Your task to perform on an android device: Add lg ultragear to the cart on ebay, then select checkout. Image 0: 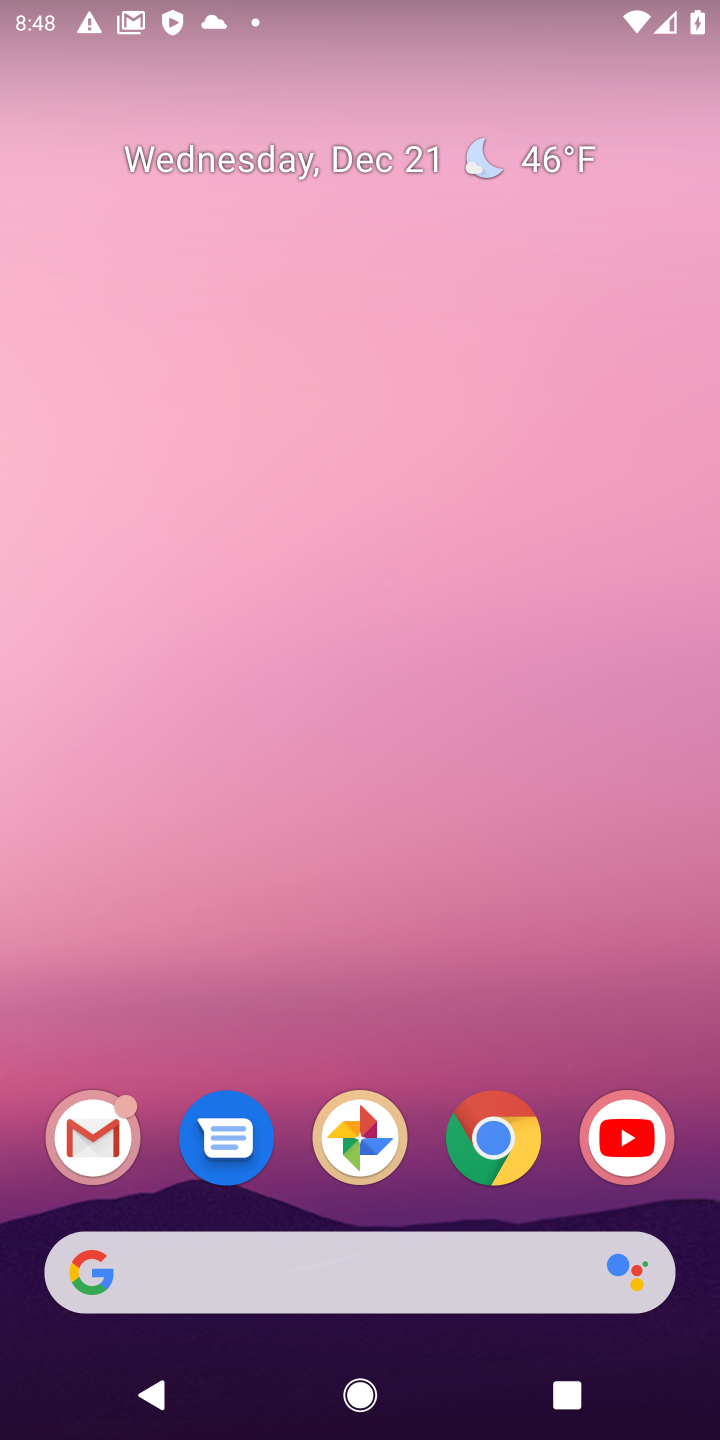
Step 0: click (500, 1150)
Your task to perform on an android device: Add lg ultragear to the cart on ebay, then select checkout. Image 1: 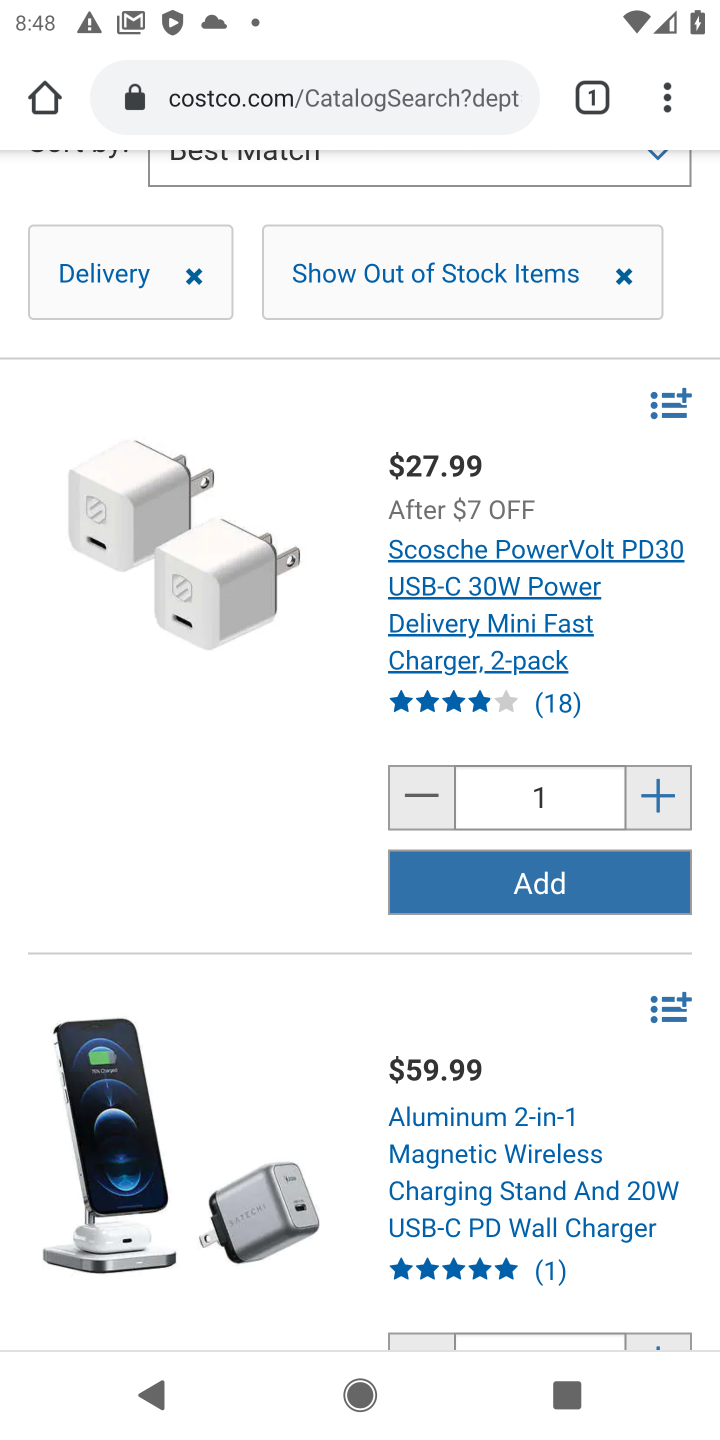
Step 1: click (310, 102)
Your task to perform on an android device: Add lg ultragear to the cart on ebay, then select checkout. Image 2: 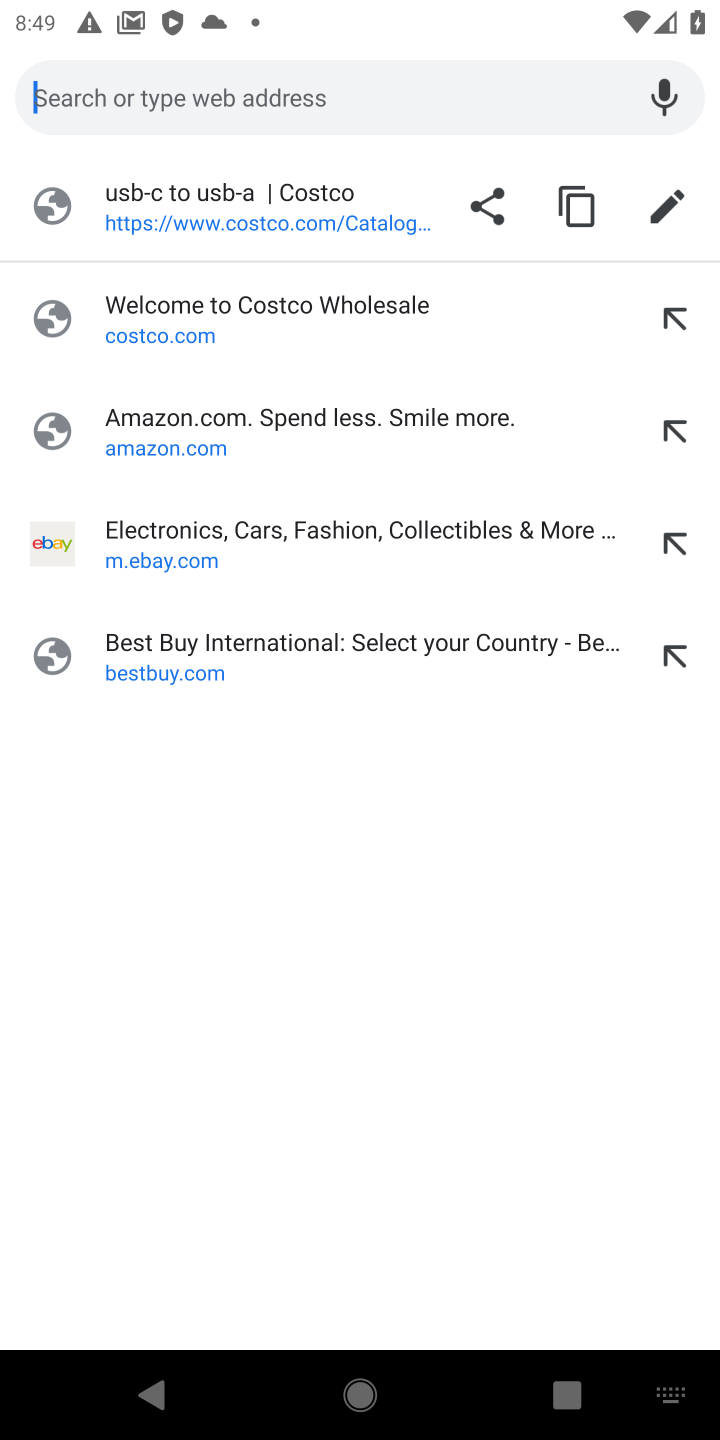
Step 2: click (132, 550)
Your task to perform on an android device: Add lg ultragear to the cart on ebay, then select checkout. Image 3: 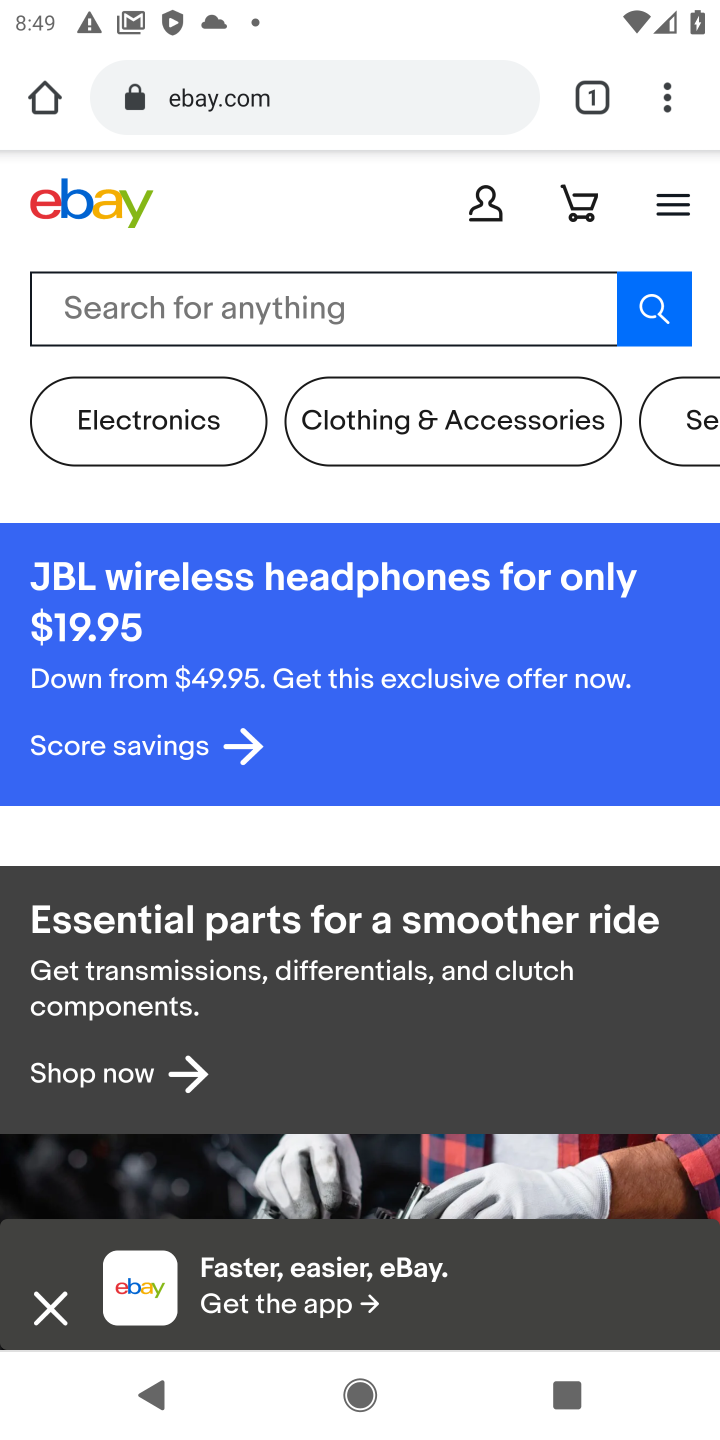
Step 3: click (128, 309)
Your task to perform on an android device: Add lg ultragear to the cart on ebay, then select checkout. Image 4: 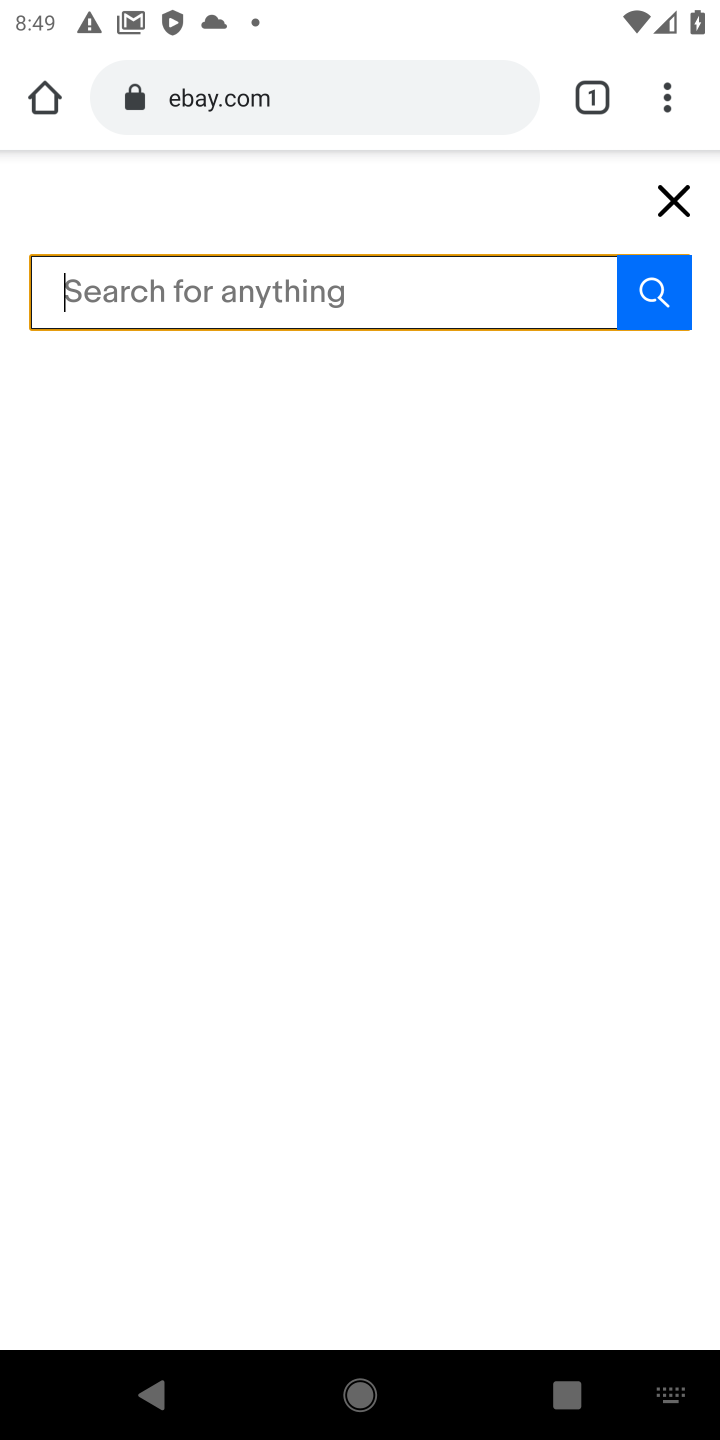
Step 4: type "lg ultragear"
Your task to perform on an android device: Add lg ultragear to the cart on ebay, then select checkout. Image 5: 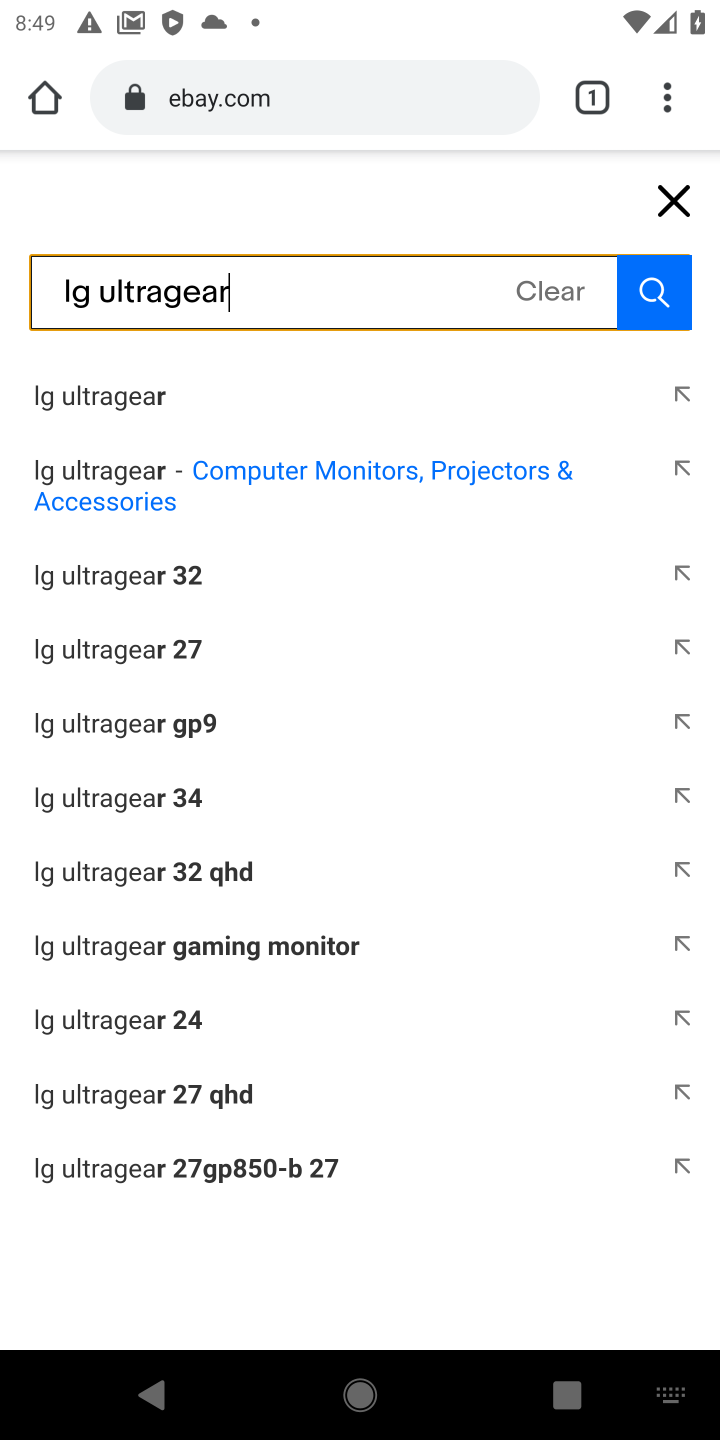
Step 5: click (79, 401)
Your task to perform on an android device: Add lg ultragear to the cart on ebay, then select checkout. Image 6: 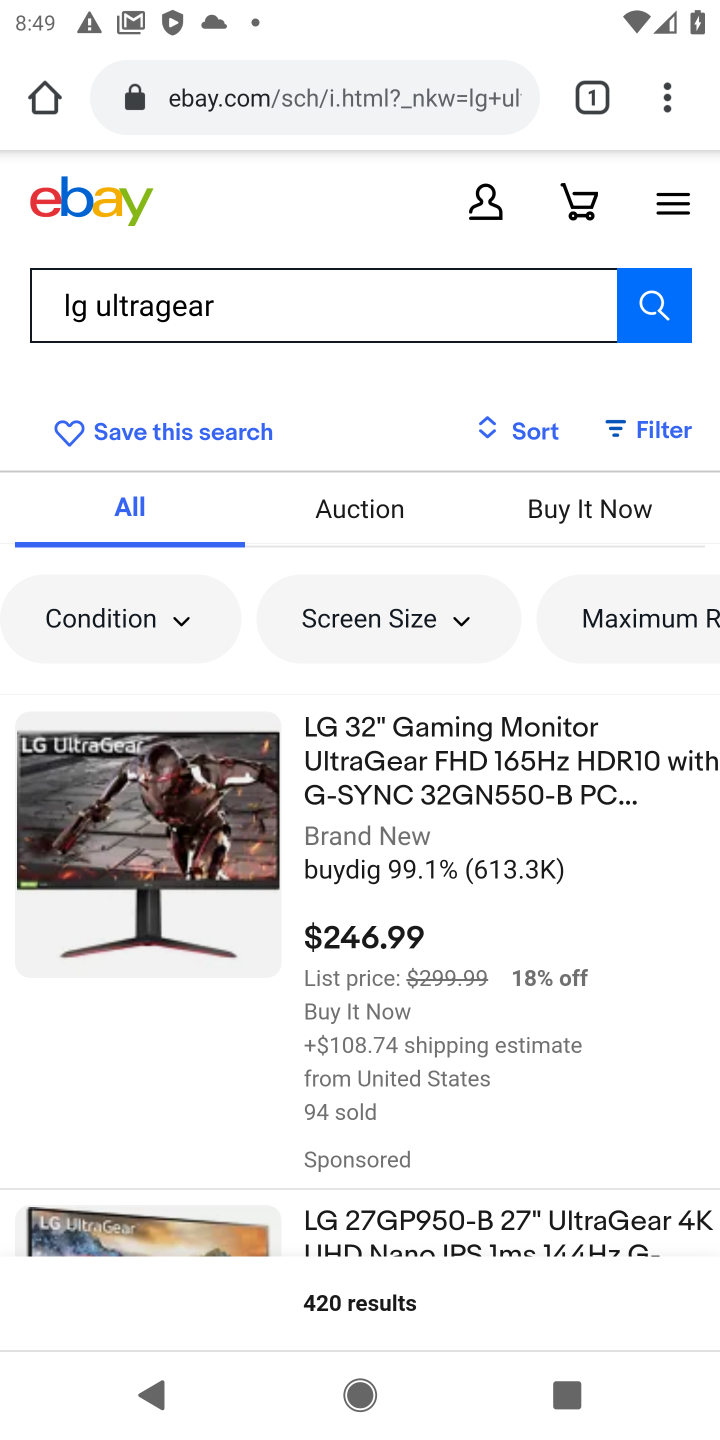
Step 6: click (476, 793)
Your task to perform on an android device: Add lg ultragear to the cart on ebay, then select checkout. Image 7: 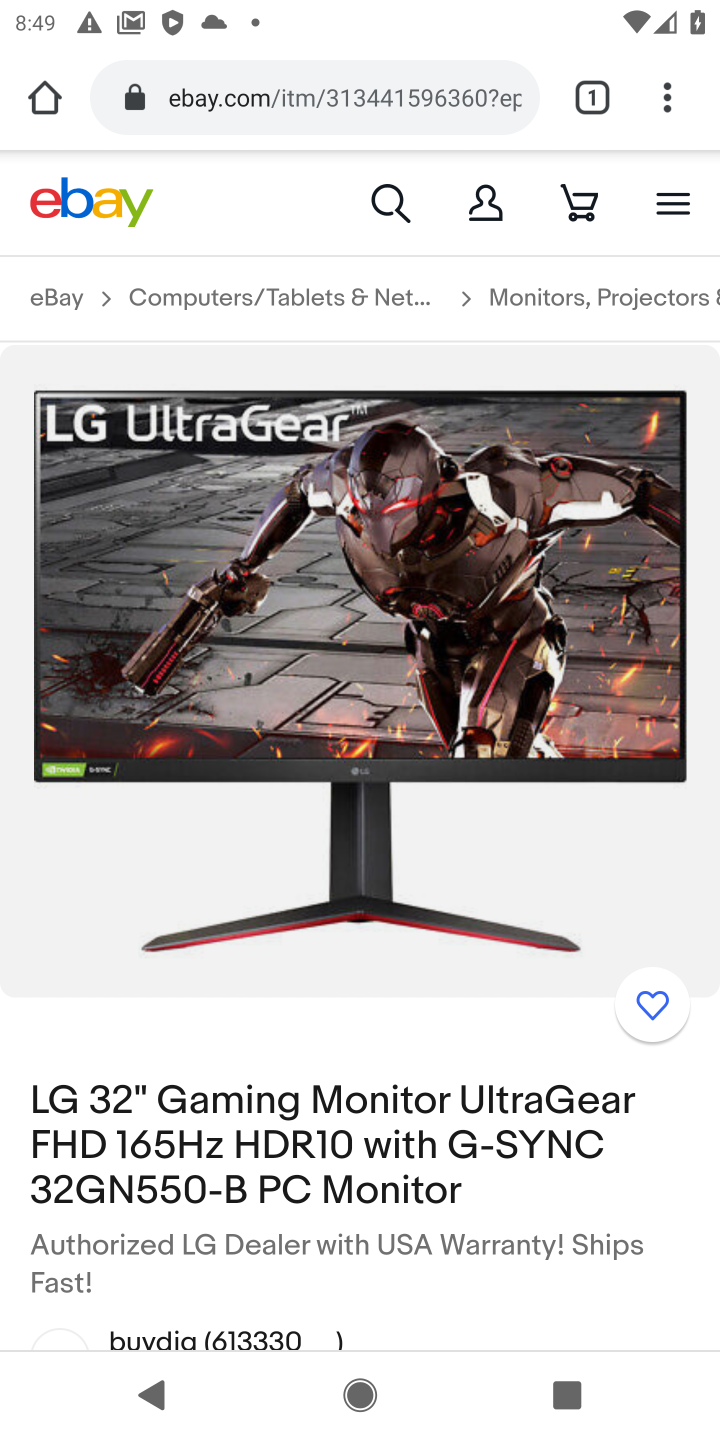
Step 7: drag from (372, 1053) to (386, 429)
Your task to perform on an android device: Add lg ultragear to the cart on ebay, then select checkout. Image 8: 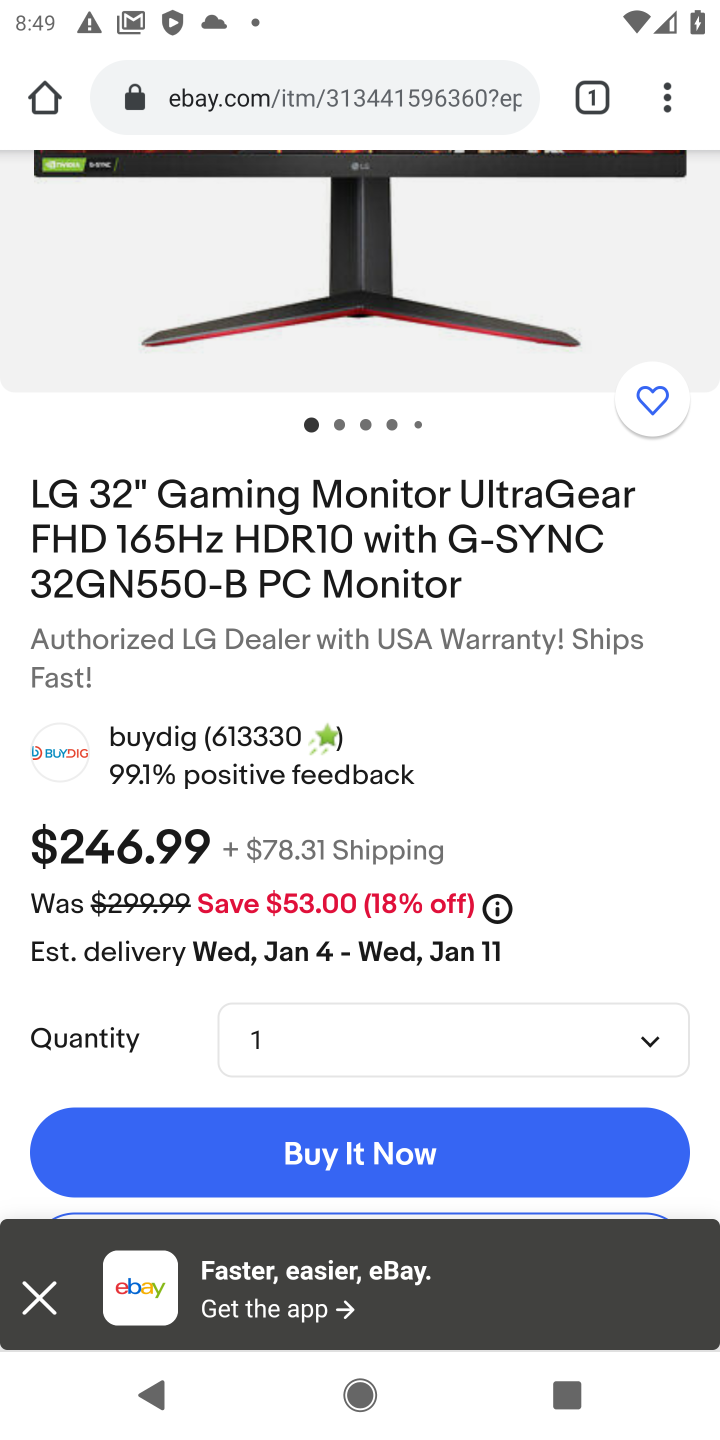
Step 8: drag from (322, 1057) to (363, 589)
Your task to perform on an android device: Add lg ultragear to the cart on ebay, then select checkout. Image 9: 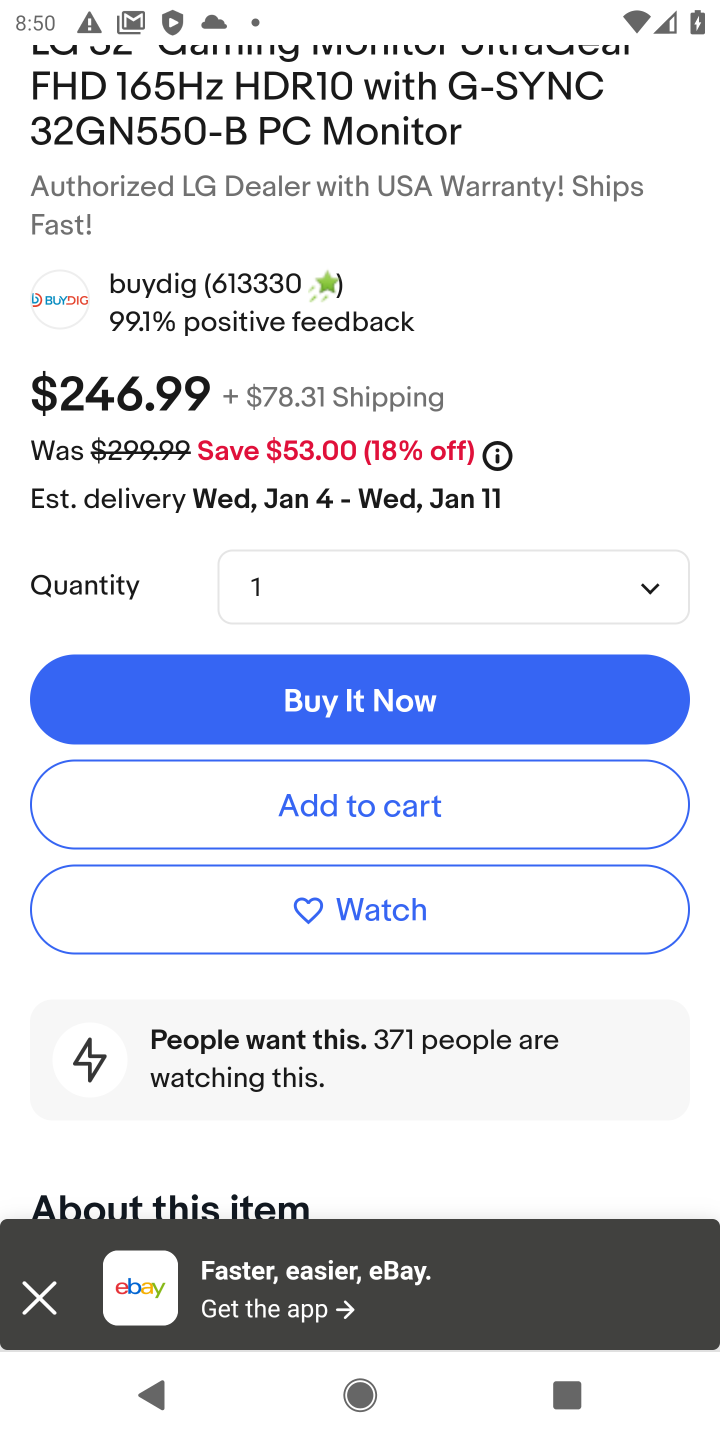
Step 9: click (350, 810)
Your task to perform on an android device: Add lg ultragear to the cart on ebay, then select checkout. Image 10: 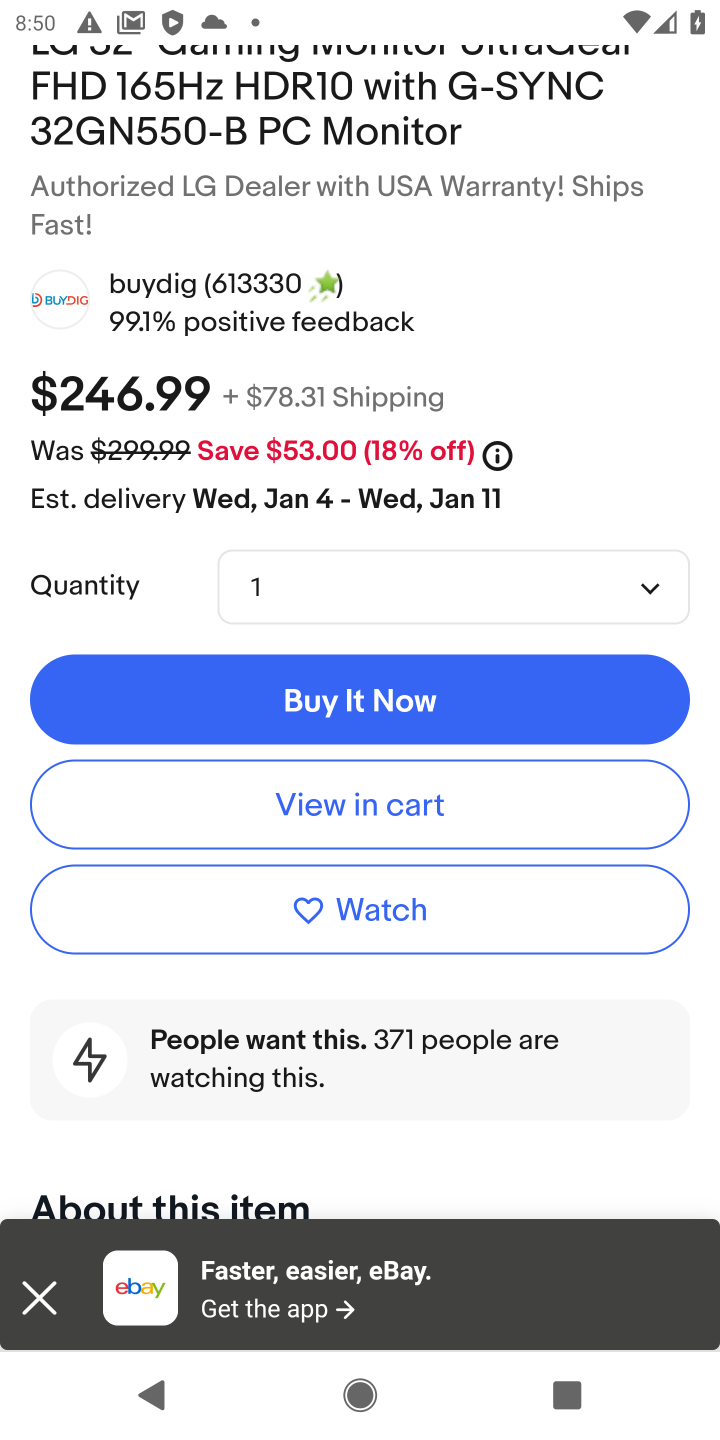
Step 10: click (350, 810)
Your task to perform on an android device: Add lg ultragear to the cart on ebay, then select checkout. Image 11: 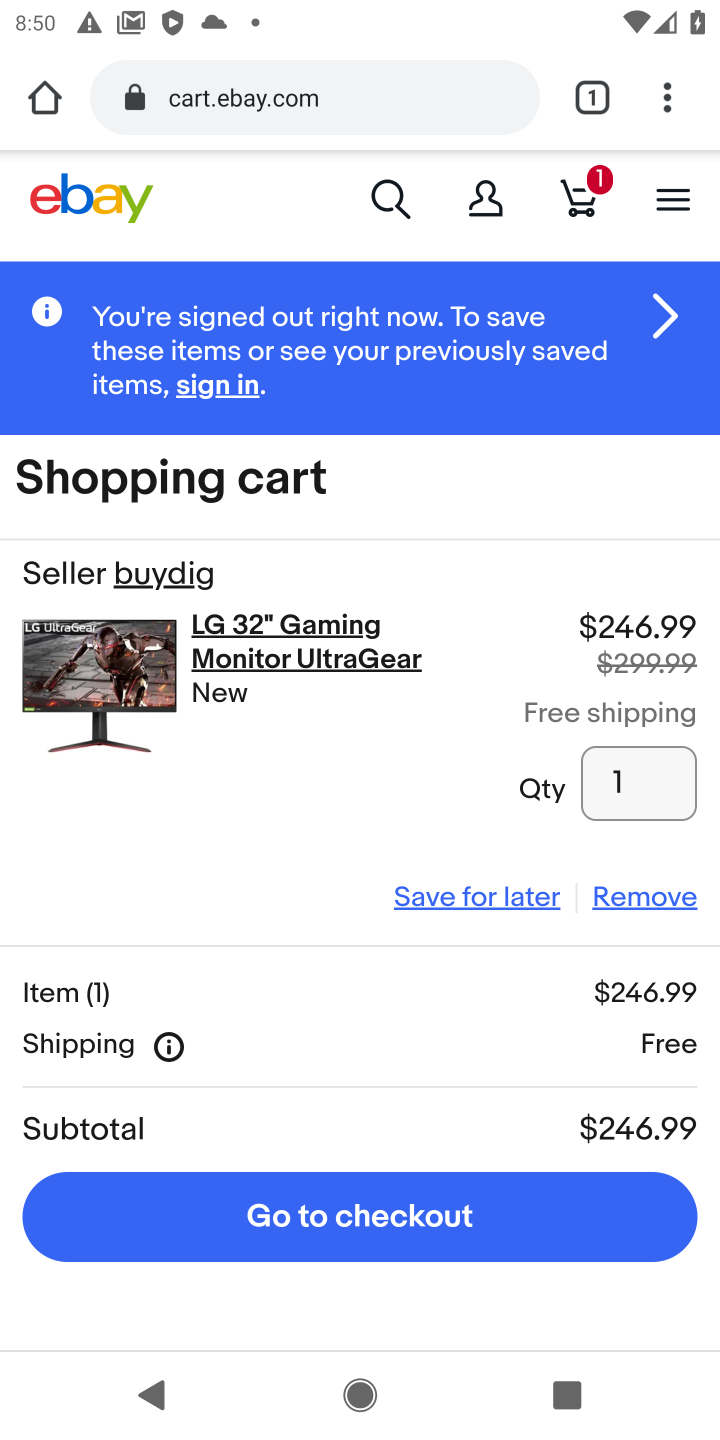
Step 11: click (342, 1211)
Your task to perform on an android device: Add lg ultragear to the cart on ebay, then select checkout. Image 12: 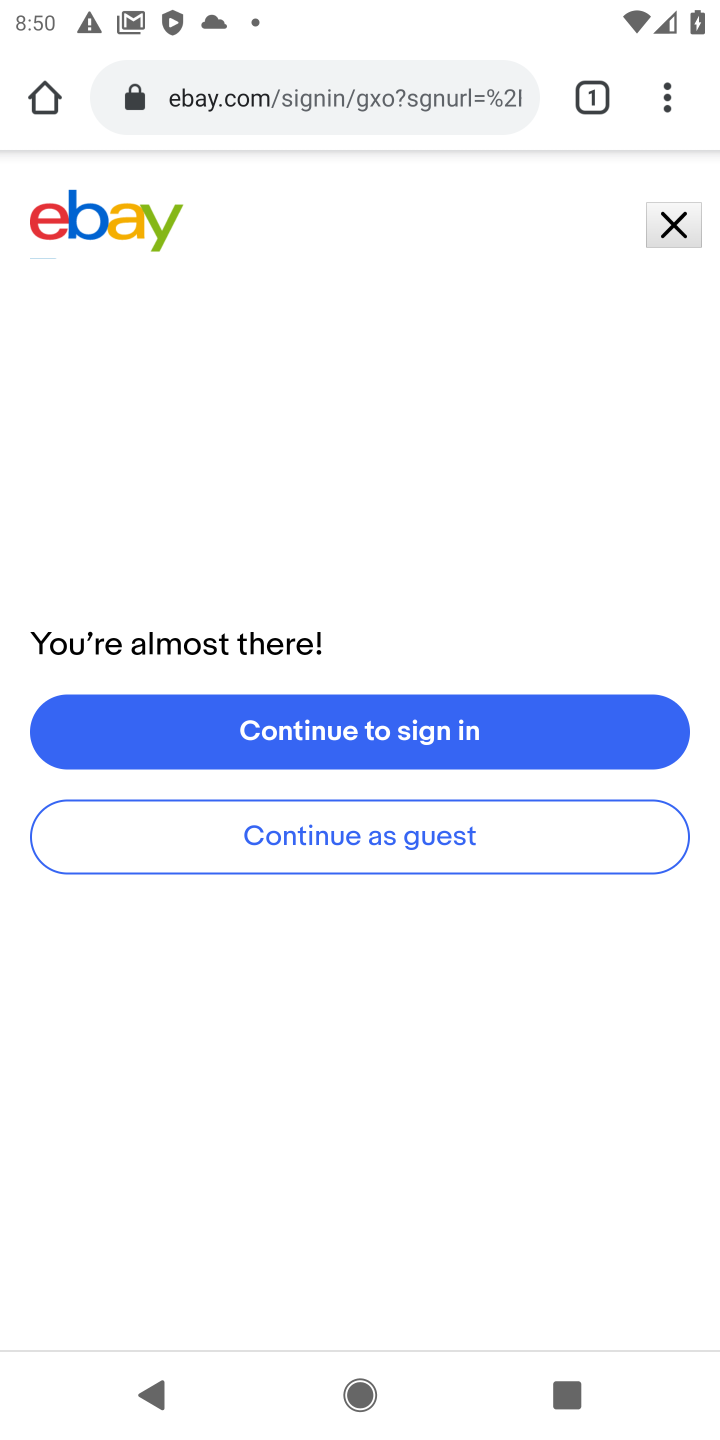
Step 12: task complete